Your task to perform on an android device: turn off improve location accuracy Image 0: 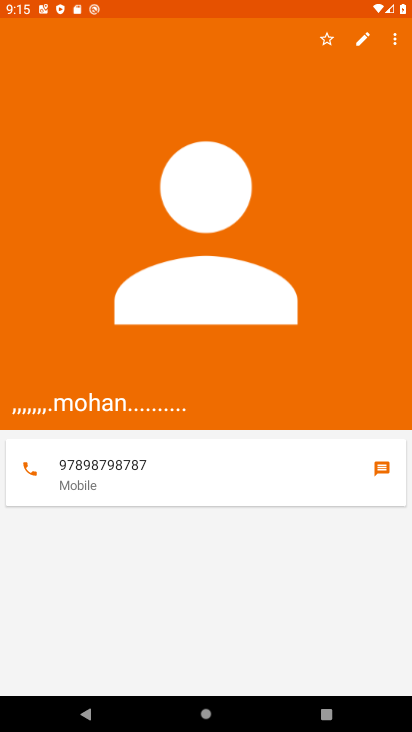
Step 0: press home button
Your task to perform on an android device: turn off improve location accuracy Image 1: 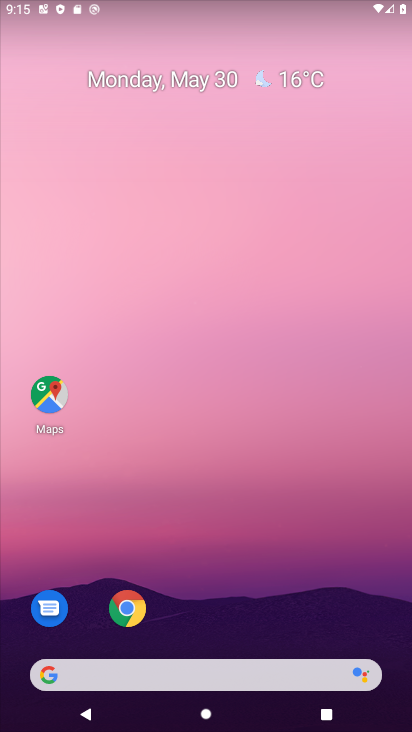
Step 1: drag from (392, 596) to (330, 251)
Your task to perform on an android device: turn off improve location accuracy Image 2: 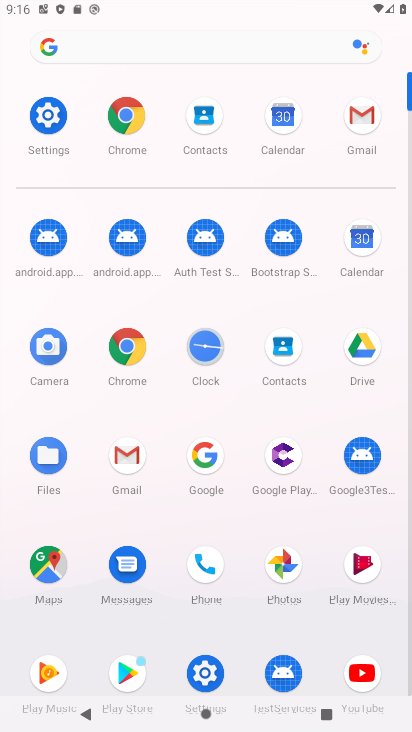
Step 2: click (49, 117)
Your task to perform on an android device: turn off improve location accuracy Image 3: 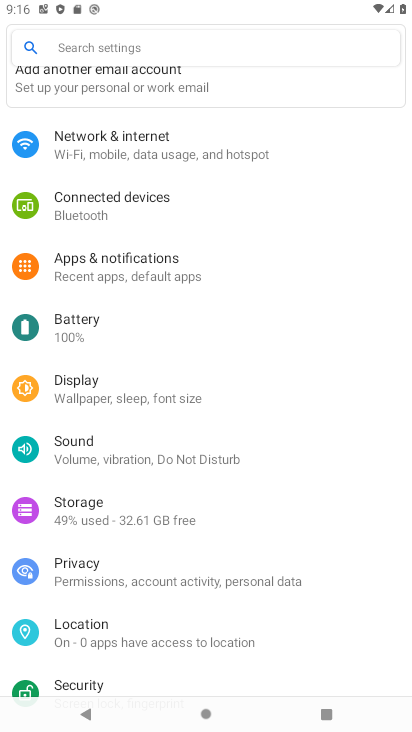
Step 3: click (104, 642)
Your task to perform on an android device: turn off improve location accuracy Image 4: 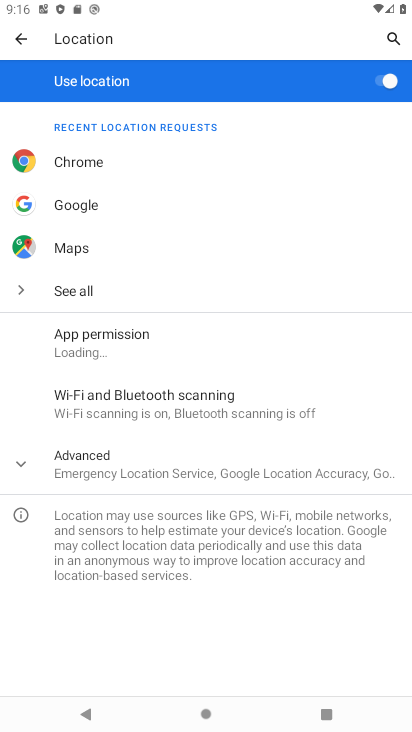
Step 4: click (28, 467)
Your task to perform on an android device: turn off improve location accuracy Image 5: 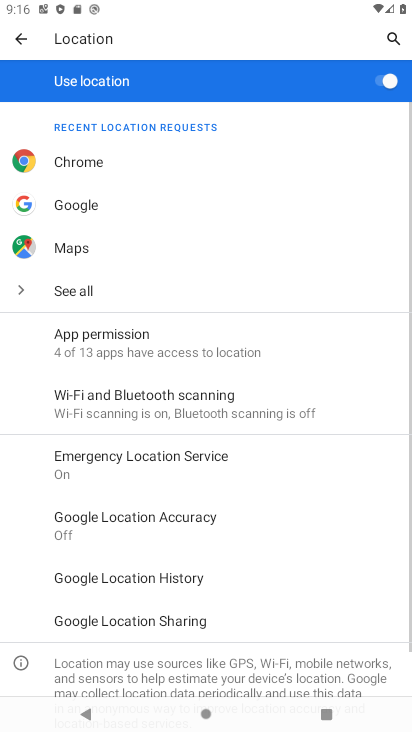
Step 5: drag from (345, 576) to (355, 178)
Your task to perform on an android device: turn off improve location accuracy Image 6: 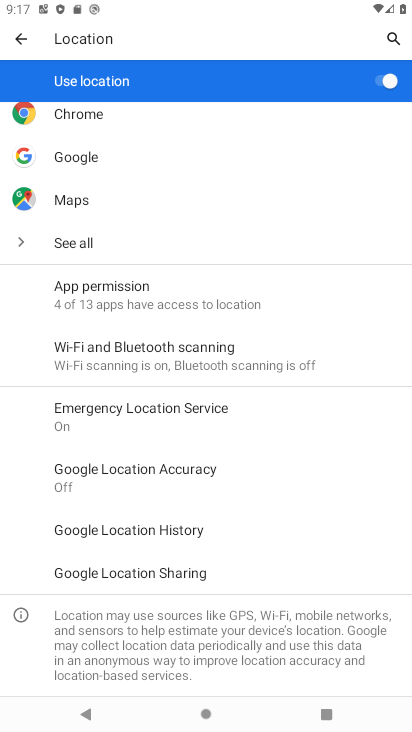
Step 6: click (121, 473)
Your task to perform on an android device: turn off improve location accuracy Image 7: 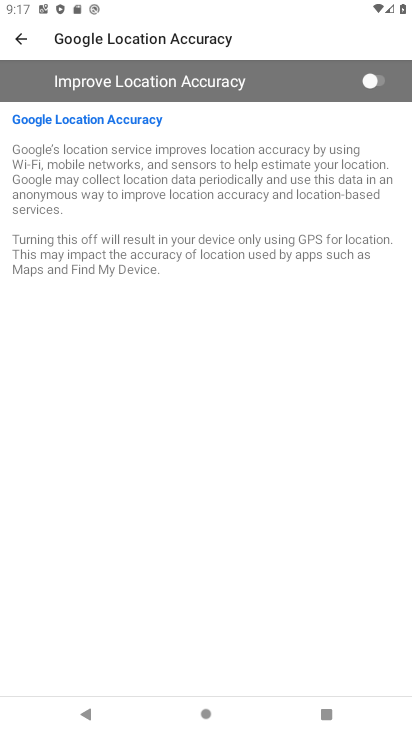
Step 7: task complete